Your task to perform on an android device: See recent photos Image 0: 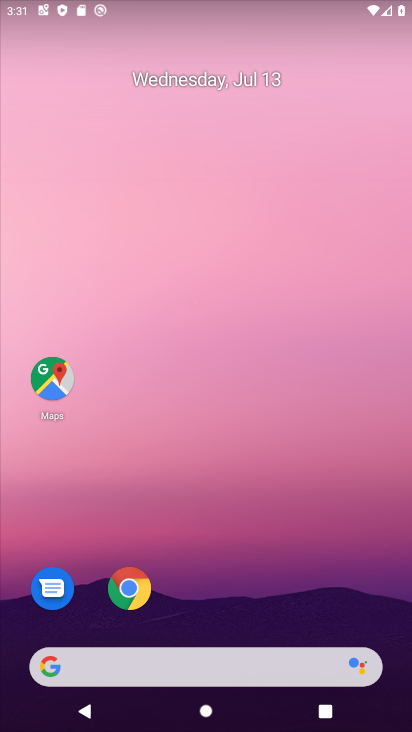
Step 0: drag from (272, 648) to (207, 317)
Your task to perform on an android device: See recent photos Image 1: 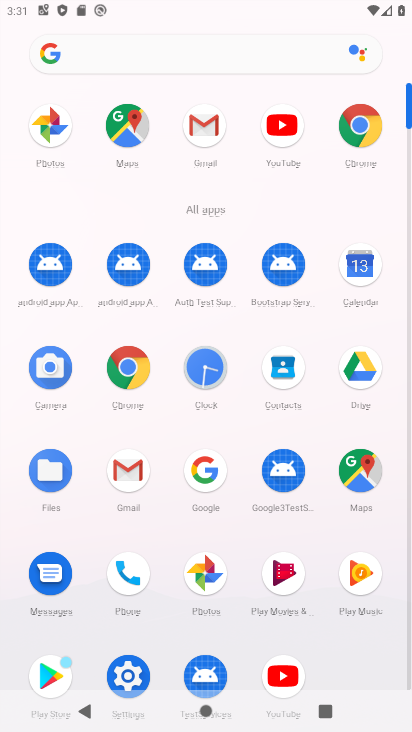
Step 1: click (215, 537)
Your task to perform on an android device: See recent photos Image 2: 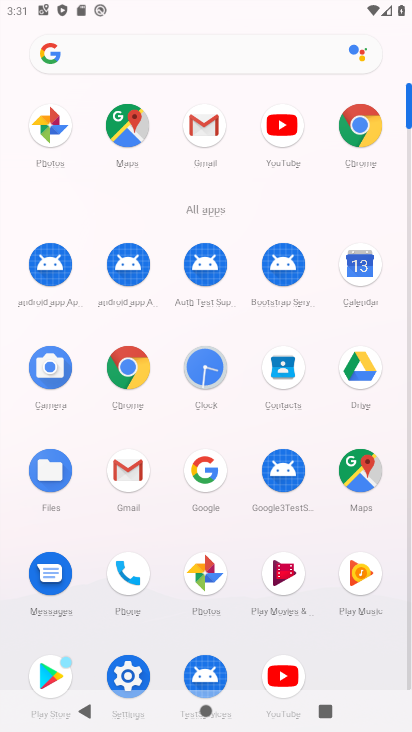
Step 2: click (208, 566)
Your task to perform on an android device: See recent photos Image 3: 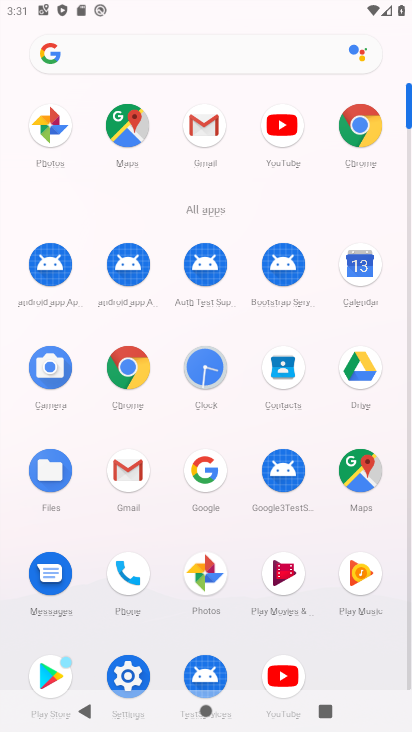
Step 3: click (208, 566)
Your task to perform on an android device: See recent photos Image 4: 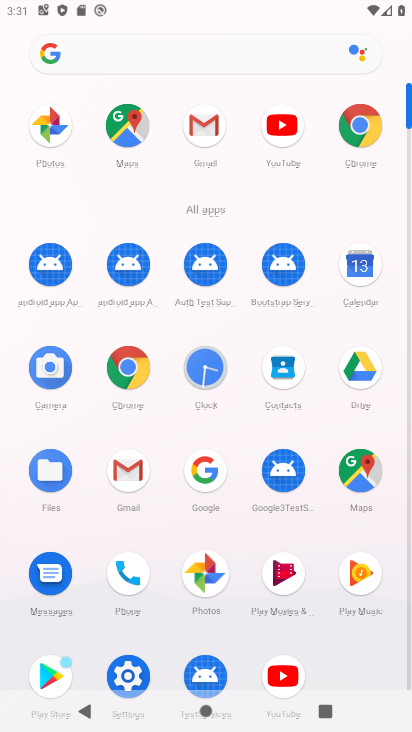
Step 4: click (208, 566)
Your task to perform on an android device: See recent photos Image 5: 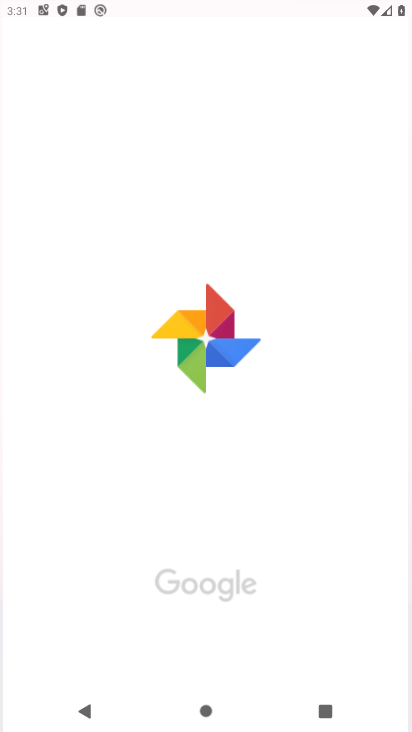
Step 5: click (209, 565)
Your task to perform on an android device: See recent photos Image 6: 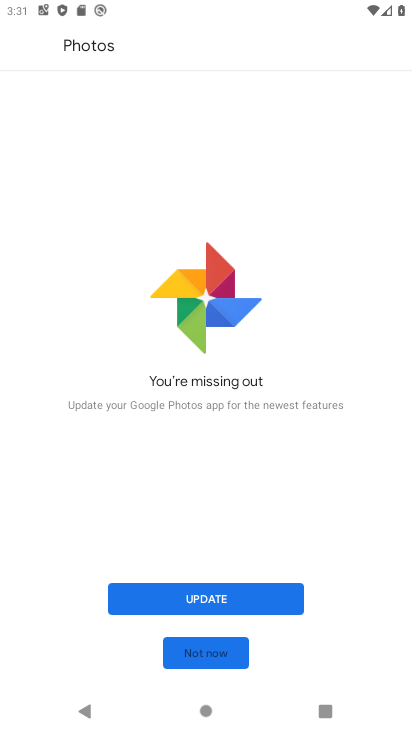
Step 6: click (204, 645)
Your task to perform on an android device: See recent photos Image 7: 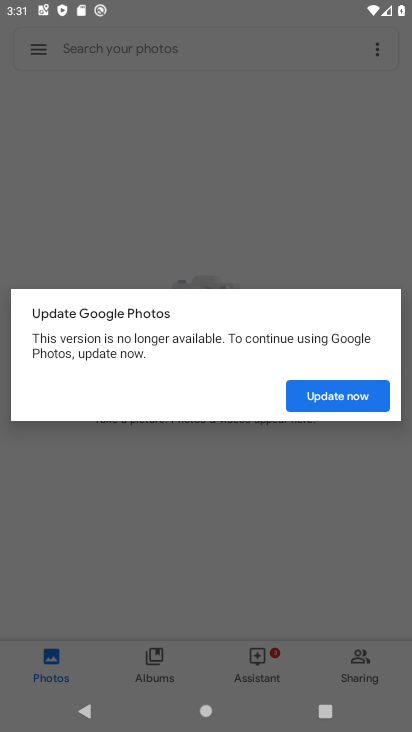
Step 7: task complete